Your task to perform on an android device: make emails show in primary in the gmail app Image 0: 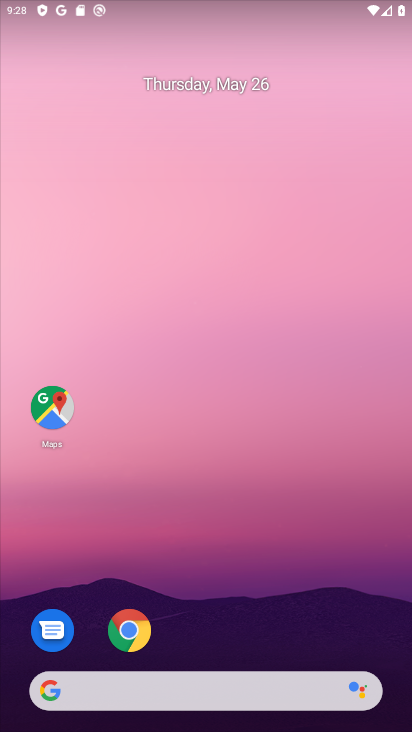
Step 0: drag from (217, 648) to (161, 227)
Your task to perform on an android device: make emails show in primary in the gmail app Image 1: 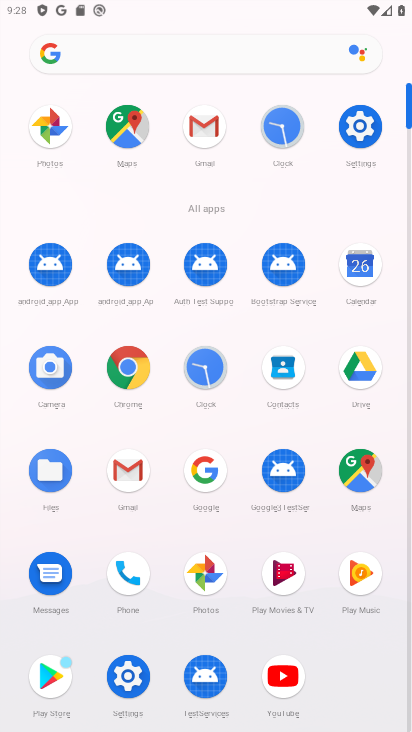
Step 1: click (119, 475)
Your task to perform on an android device: make emails show in primary in the gmail app Image 2: 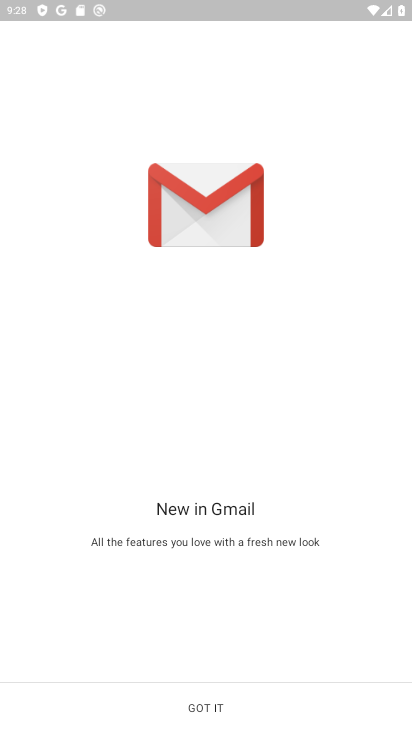
Step 2: click (216, 719)
Your task to perform on an android device: make emails show in primary in the gmail app Image 3: 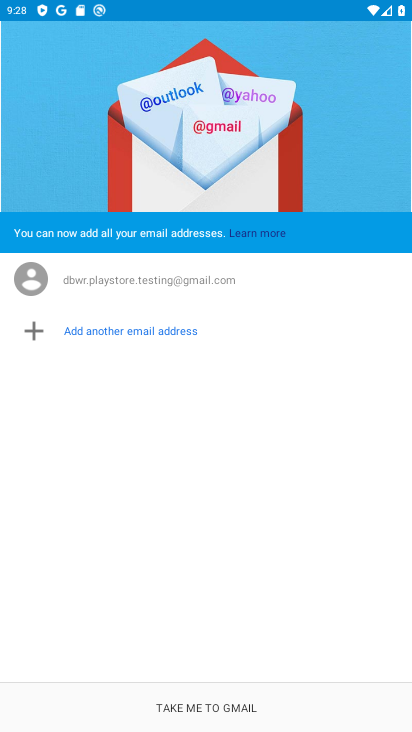
Step 3: click (216, 719)
Your task to perform on an android device: make emails show in primary in the gmail app Image 4: 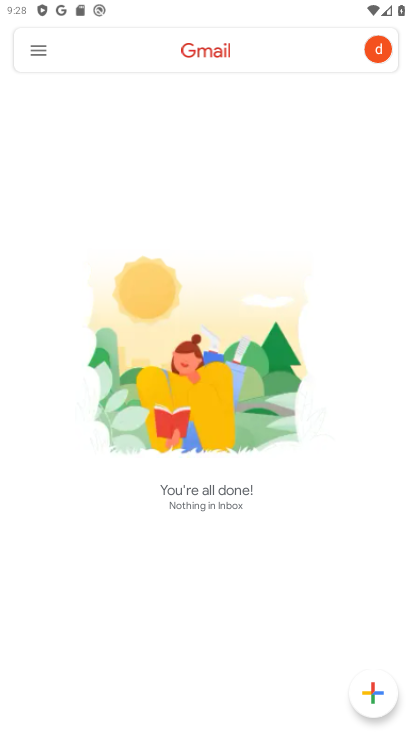
Step 4: click (34, 50)
Your task to perform on an android device: make emails show in primary in the gmail app Image 5: 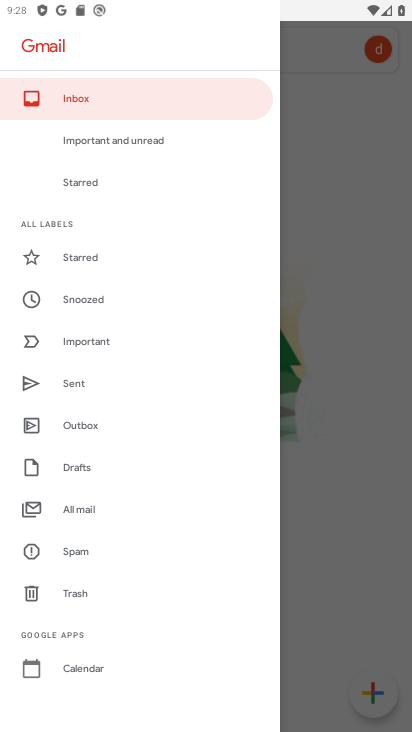
Step 5: drag from (177, 566) to (153, 203)
Your task to perform on an android device: make emails show in primary in the gmail app Image 6: 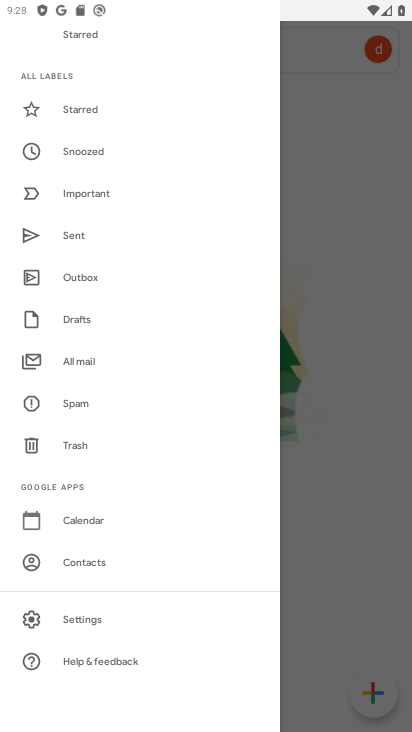
Step 6: click (61, 619)
Your task to perform on an android device: make emails show in primary in the gmail app Image 7: 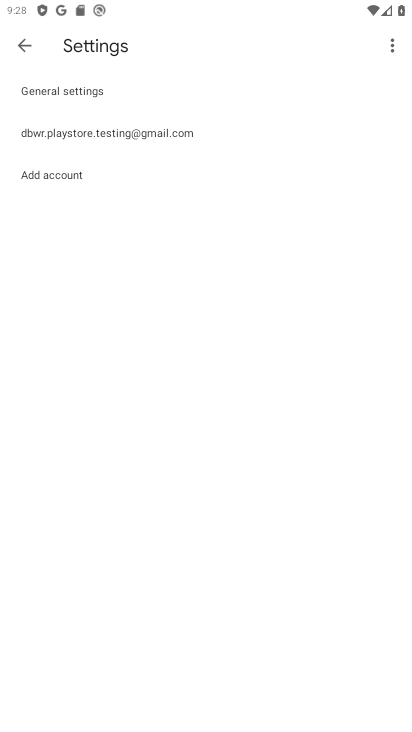
Step 7: click (85, 129)
Your task to perform on an android device: make emails show in primary in the gmail app Image 8: 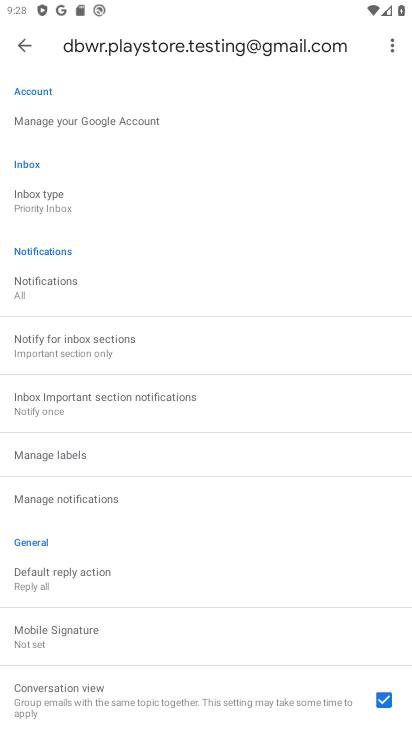
Step 8: click (65, 205)
Your task to perform on an android device: make emails show in primary in the gmail app Image 9: 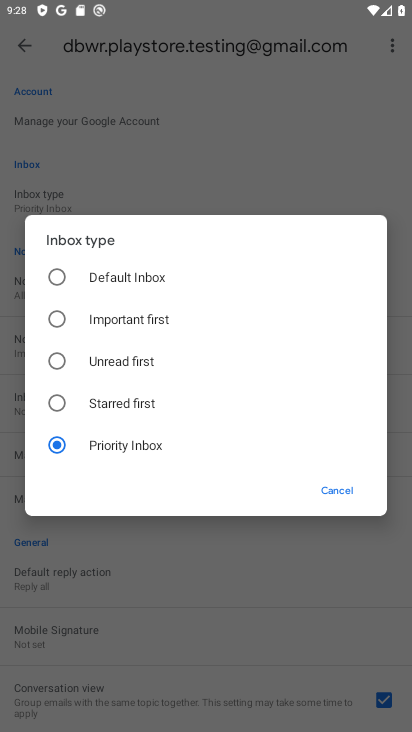
Step 9: click (52, 274)
Your task to perform on an android device: make emails show in primary in the gmail app Image 10: 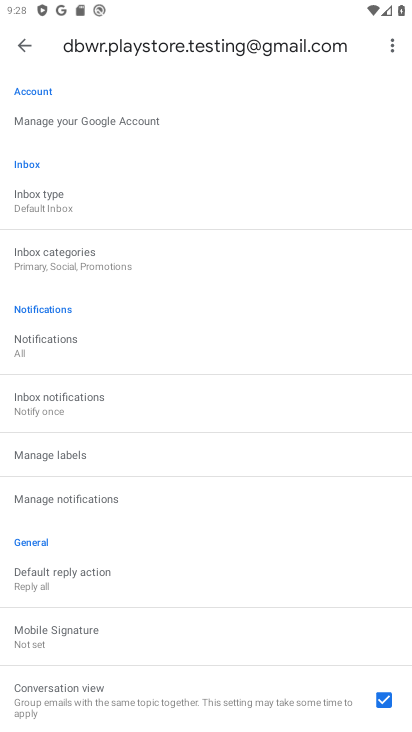
Step 10: click (29, 54)
Your task to perform on an android device: make emails show in primary in the gmail app Image 11: 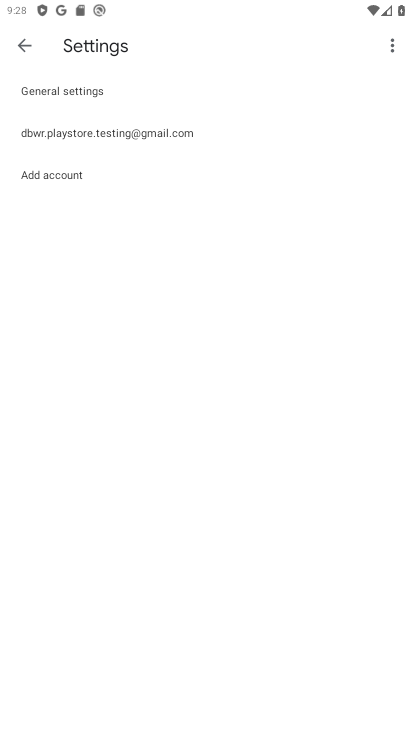
Step 11: click (29, 54)
Your task to perform on an android device: make emails show in primary in the gmail app Image 12: 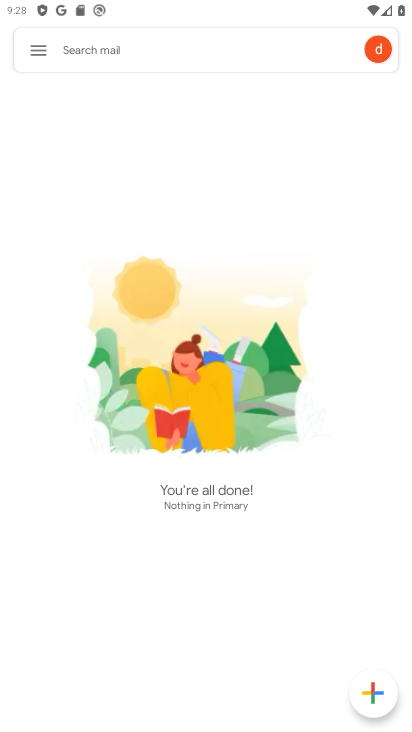
Step 12: task complete